Your task to perform on an android device: Go to Android settings Image 0: 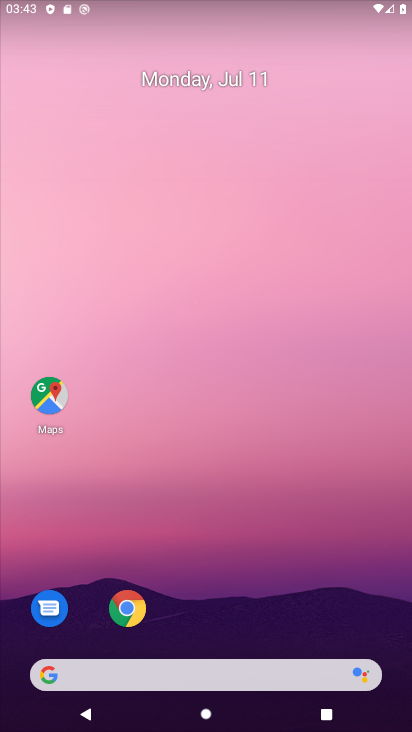
Step 0: drag from (238, 668) to (407, 246)
Your task to perform on an android device: Go to Android settings Image 1: 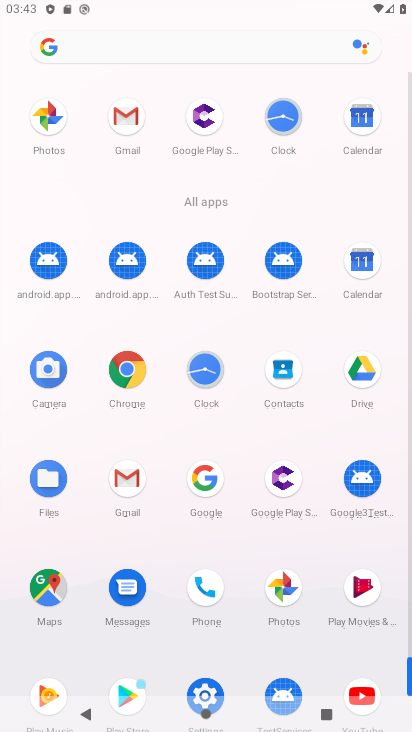
Step 1: click (204, 681)
Your task to perform on an android device: Go to Android settings Image 2: 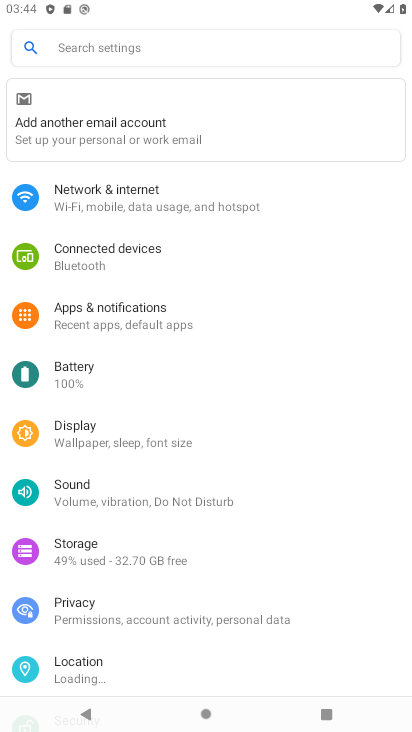
Step 2: drag from (274, 592) to (341, 19)
Your task to perform on an android device: Go to Android settings Image 3: 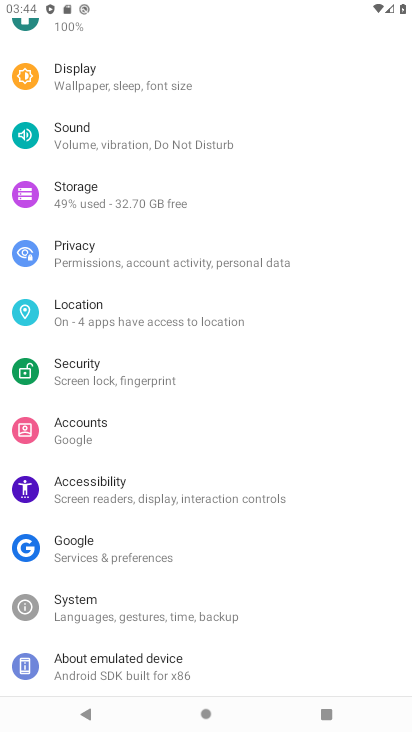
Step 3: click (191, 670)
Your task to perform on an android device: Go to Android settings Image 4: 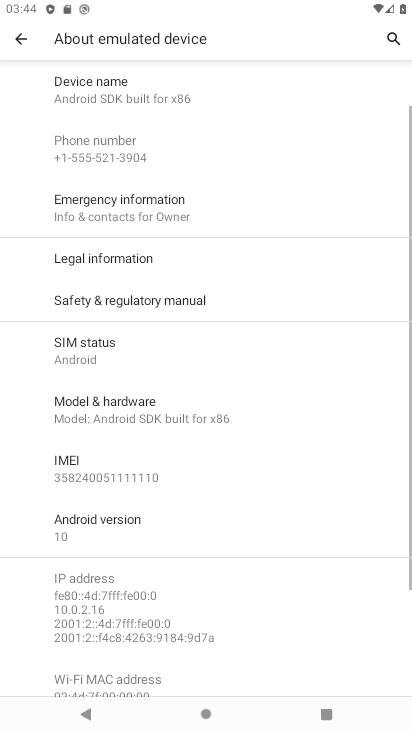
Step 4: task complete